Your task to perform on an android device: Go to battery settings Image 0: 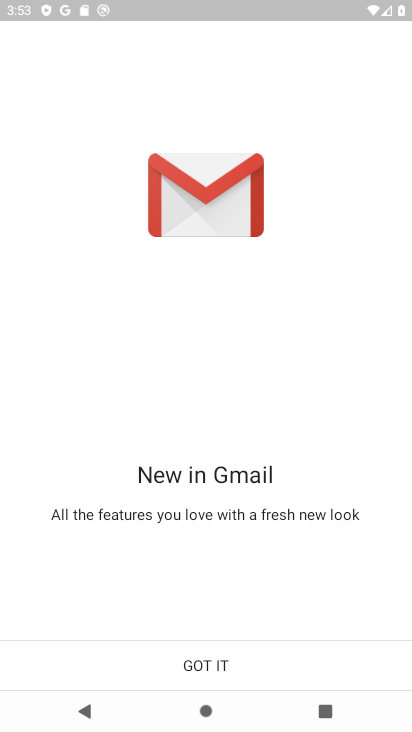
Step 0: drag from (177, 2) to (253, 668)
Your task to perform on an android device: Go to battery settings Image 1: 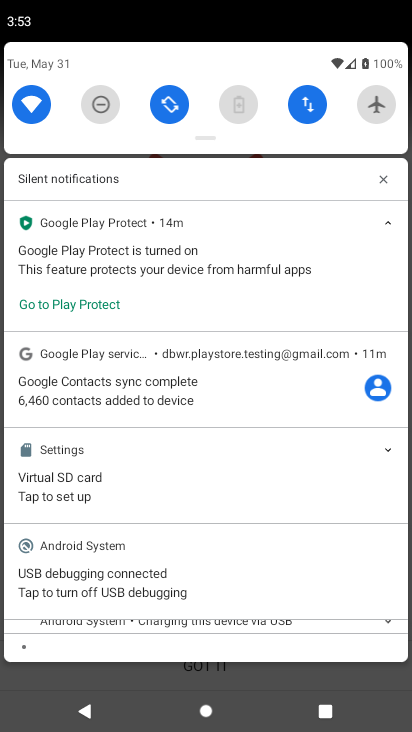
Step 1: click (243, 101)
Your task to perform on an android device: Go to battery settings Image 2: 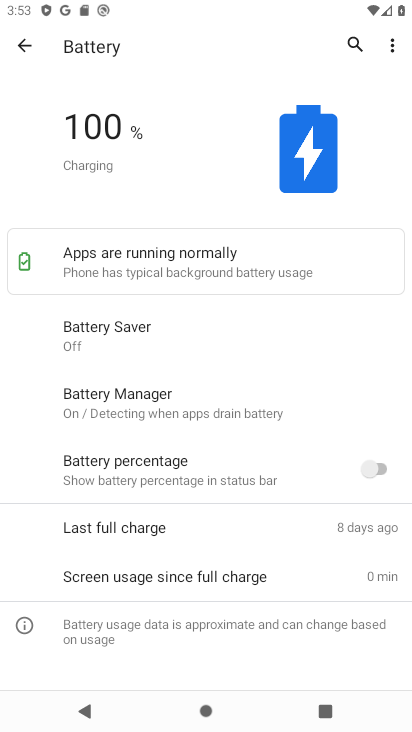
Step 2: task complete